Your task to perform on an android device: toggle sleep mode Image 0: 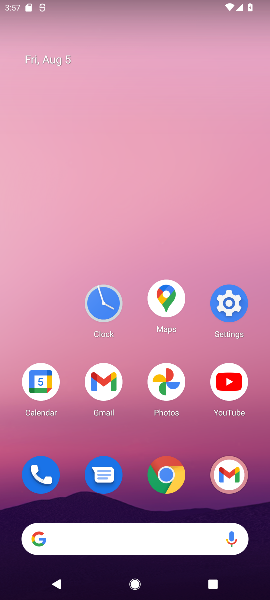
Step 0: click (223, 305)
Your task to perform on an android device: toggle sleep mode Image 1: 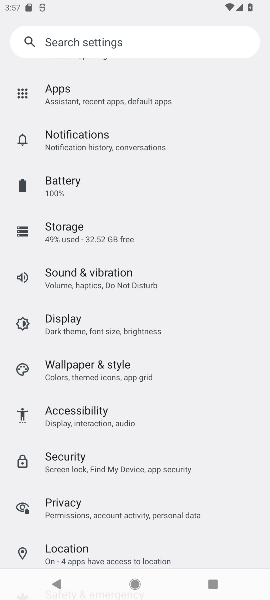
Step 1: click (53, 321)
Your task to perform on an android device: toggle sleep mode Image 2: 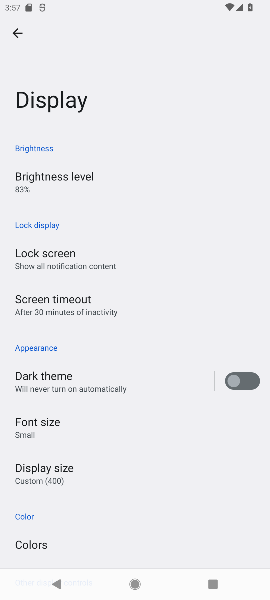
Step 2: drag from (82, 523) to (108, 317)
Your task to perform on an android device: toggle sleep mode Image 3: 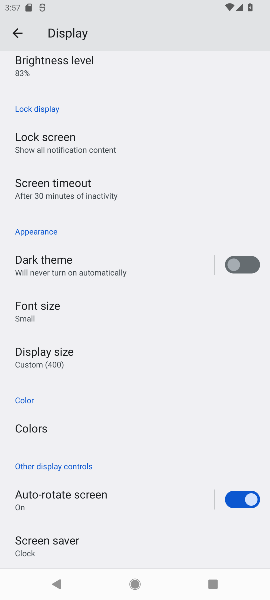
Step 3: click (44, 169)
Your task to perform on an android device: toggle sleep mode Image 4: 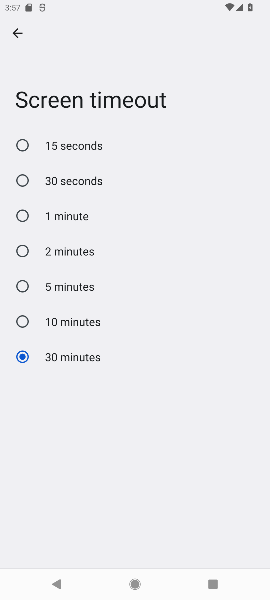
Step 4: click (49, 289)
Your task to perform on an android device: toggle sleep mode Image 5: 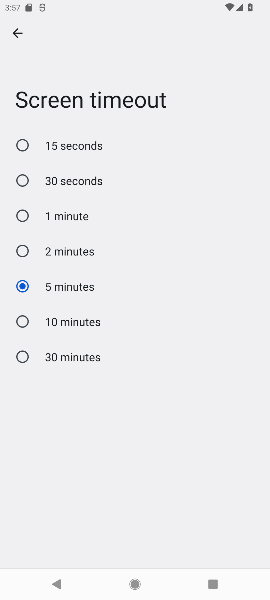
Step 5: task complete